Your task to perform on an android device: turn off sleep mode Image 0: 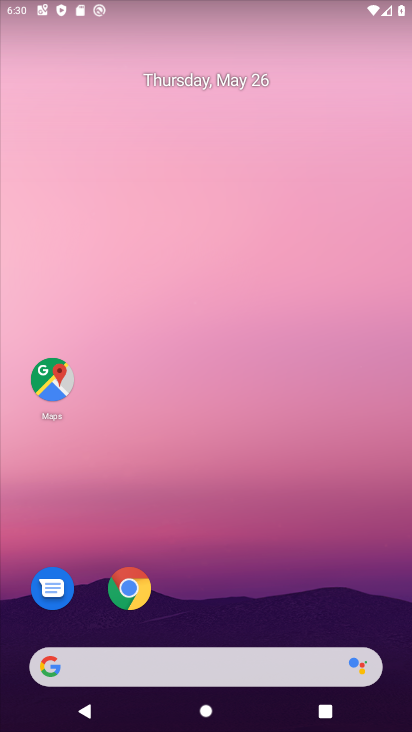
Step 0: drag from (343, 596) to (271, 38)
Your task to perform on an android device: turn off sleep mode Image 1: 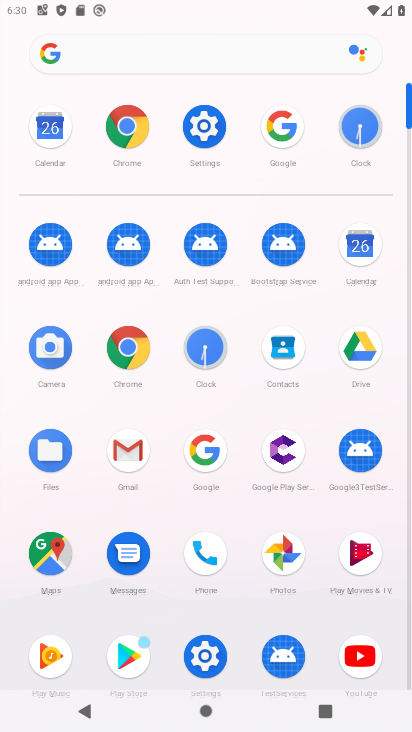
Step 1: click (208, 123)
Your task to perform on an android device: turn off sleep mode Image 2: 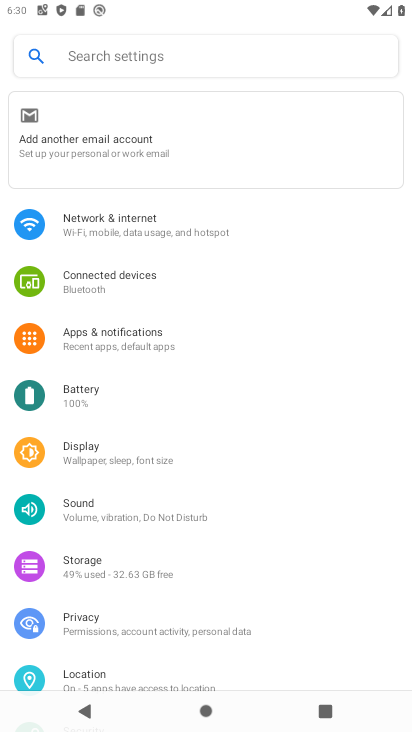
Step 2: task complete